Your task to perform on an android device: choose inbox layout in the gmail app Image 0: 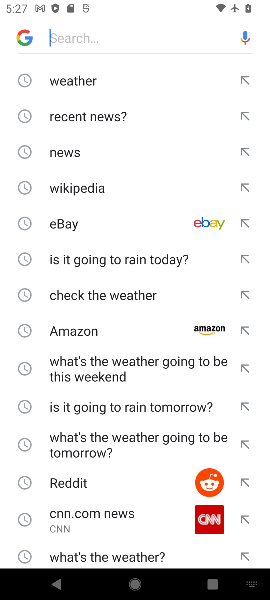
Step 0: press home button
Your task to perform on an android device: choose inbox layout in the gmail app Image 1: 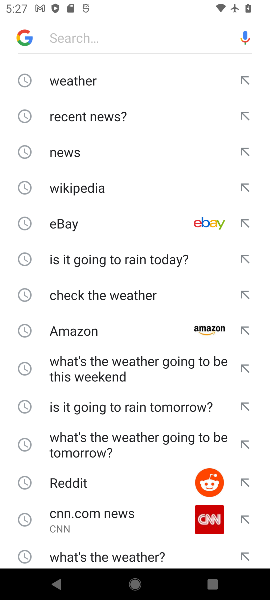
Step 1: press home button
Your task to perform on an android device: choose inbox layout in the gmail app Image 2: 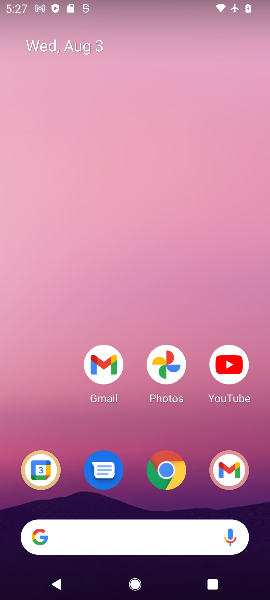
Step 2: drag from (46, 405) to (111, 90)
Your task to perform on an android device: choose inbox layout in the gmail app Image 3: 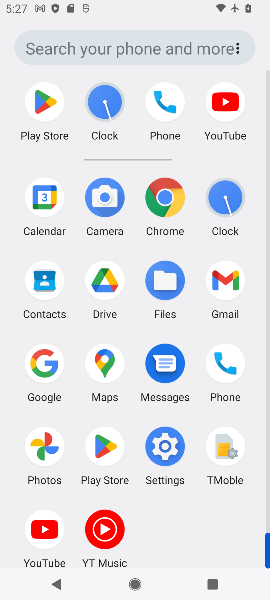
Step 3: click (234, 284)
Your task to perform on an android device: choose inbox layout in the gmail app Image 4: 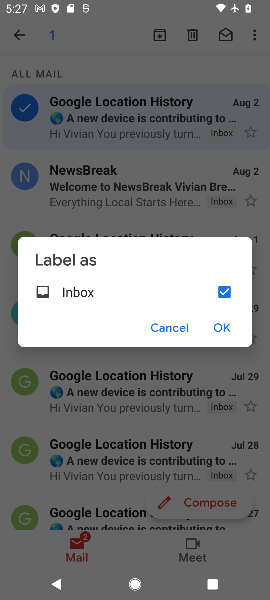
Step 4: click (168, 332)
Your task to perform on an android device: choose inbox layout in the gmail app Image 5: 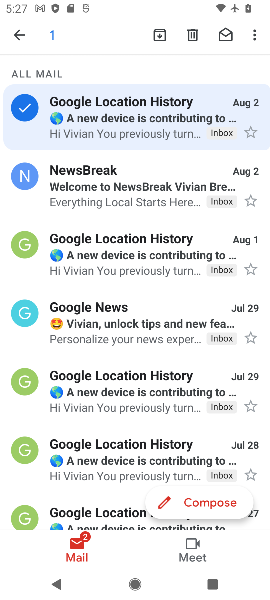
Step 5: click (16, 35)
Your task to perform on an android device: choose inbox layout in the gmail app Image 6: 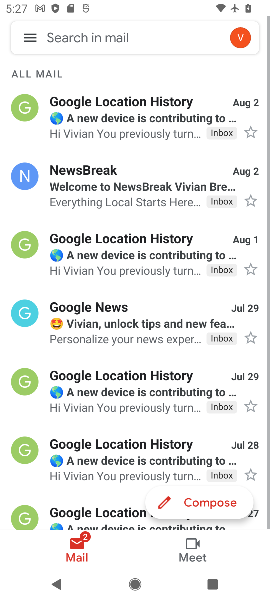
Step 6: click (24, 32)
Your task to perform on an android device: choose inbox layout in the gmail app Image 7: 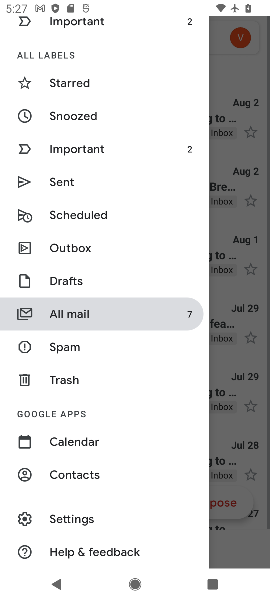
Step 7: click (63, 524)
Your task to perform on an android device: choose inbox layout in the gmail app Image 8: 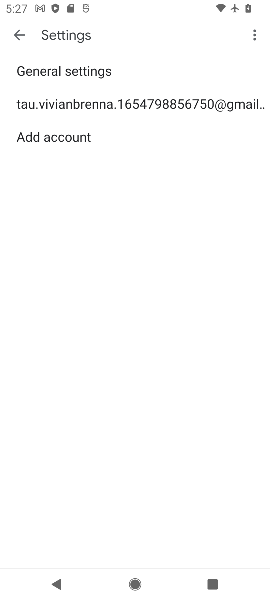
Step 8: click (113, 100)
Your task to perform on an android device: choose inbox layout in the gmail app Image 9: 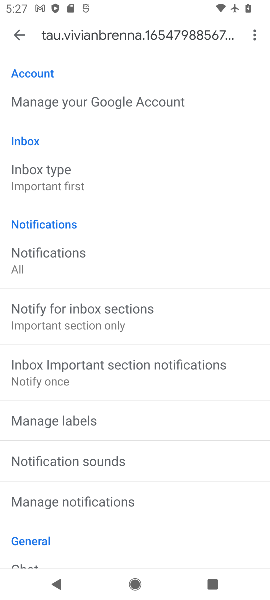
Step 9: click (54, 187)
Your task to perform on an android device: choose inbox layout in the gmail app Image 10: 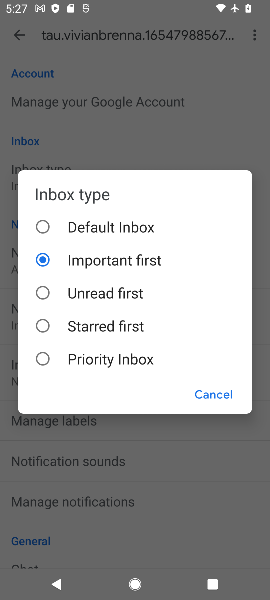
Step 10: task complete